Your task to perform on an android device: See recent photos Image 0: 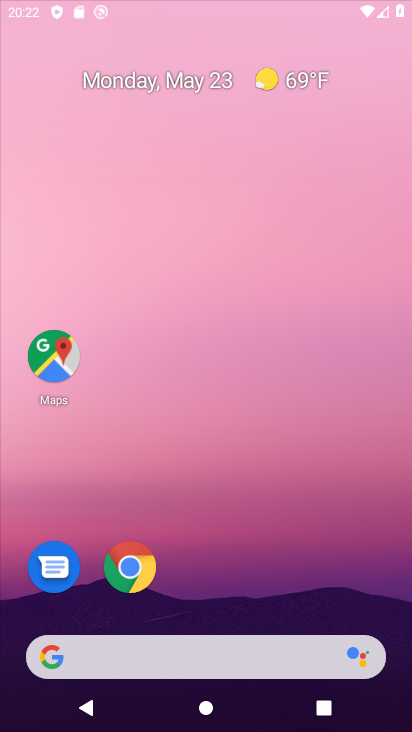
Step 0: click (140, 569)
Your task to perform on an android device: See recent photos Image 1: 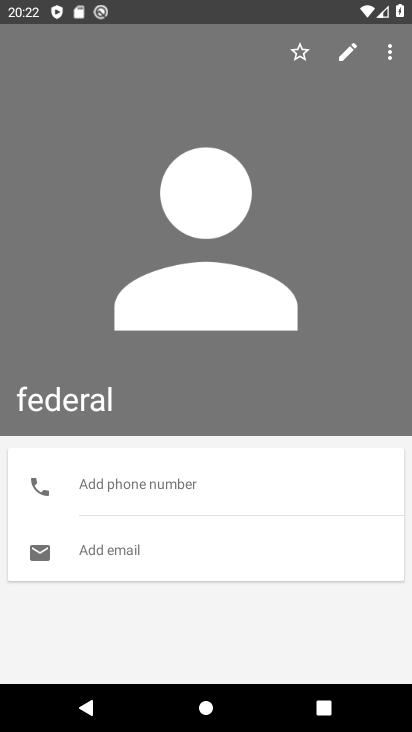
Step 1: press home button
Your task to perform on an android device: See recent photos Image 2: 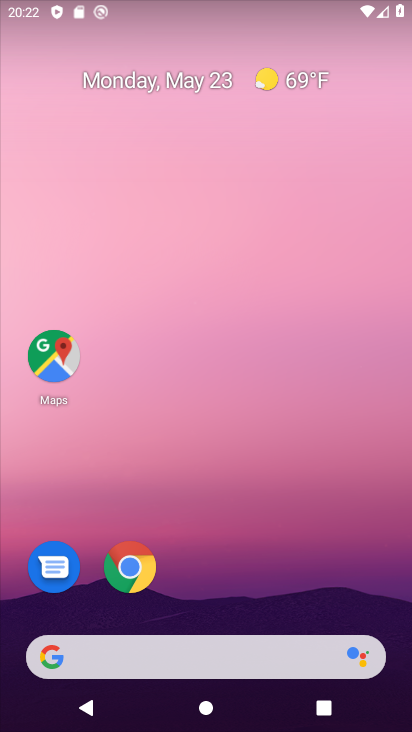
Step 2: drag from (216, 573) to (286, 104)
Your task to perform on an android device: See recent photos Image 3: 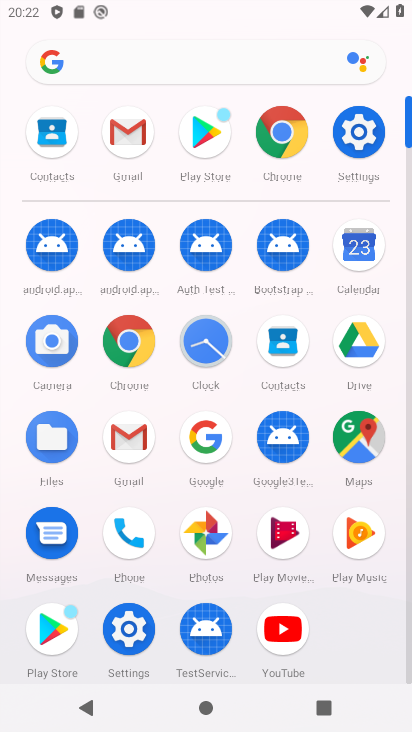
Step 3: click (214, 546)
Your task to perform on an android device: See recent photos Image 4: 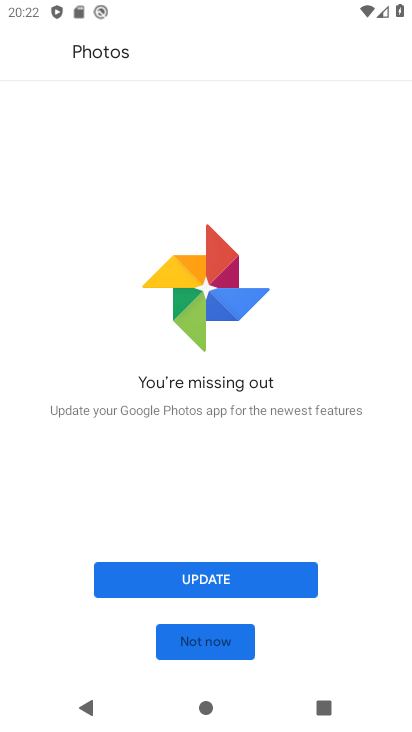
Step 4: click (201, 639)
Your task to perform on an android device: See recent photos Image 5: 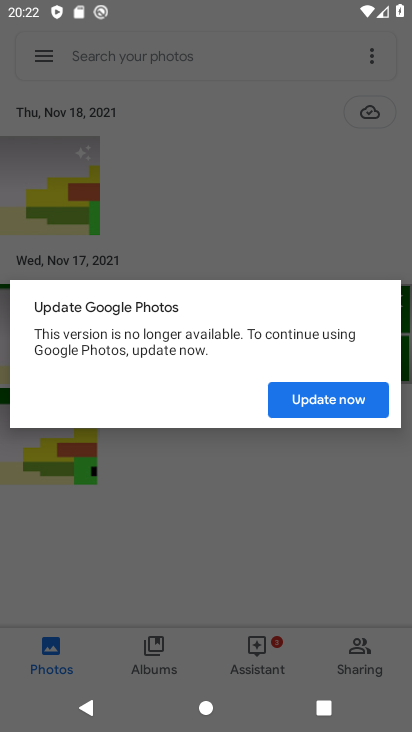
Step 5: click (322, 399)
Your task to perform on an android device: See recent photos Image 6: 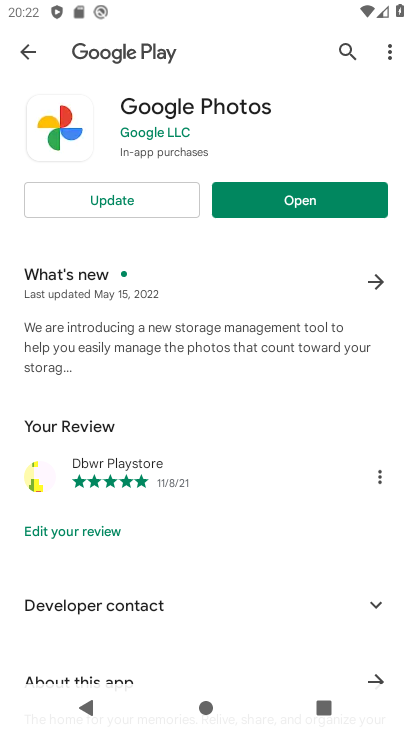
Step 6: press back button
Your task to perform on an android device: See recent photos Image 7: 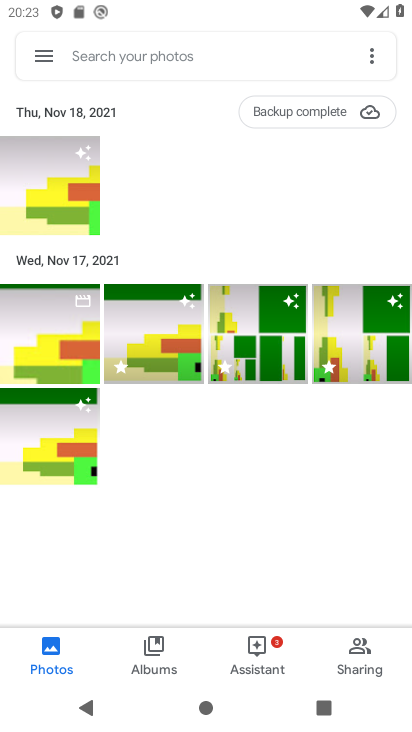
Step 7: click (54, 187)
Your task to perform on an android device: See recent photos Image 8: 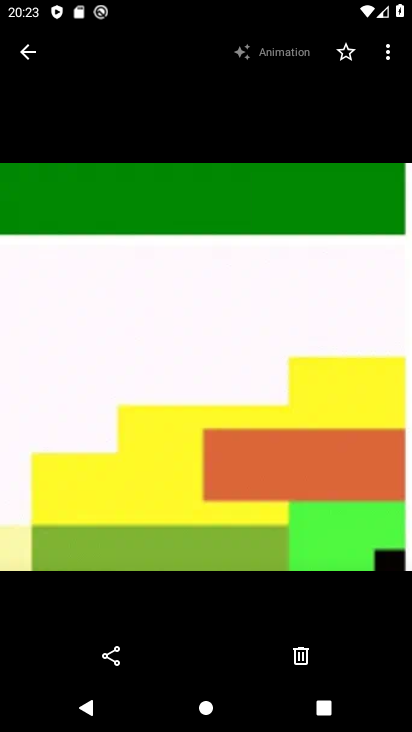
Step 8: task complete